Your task to perform on an android device: Open battery settings Image 0: 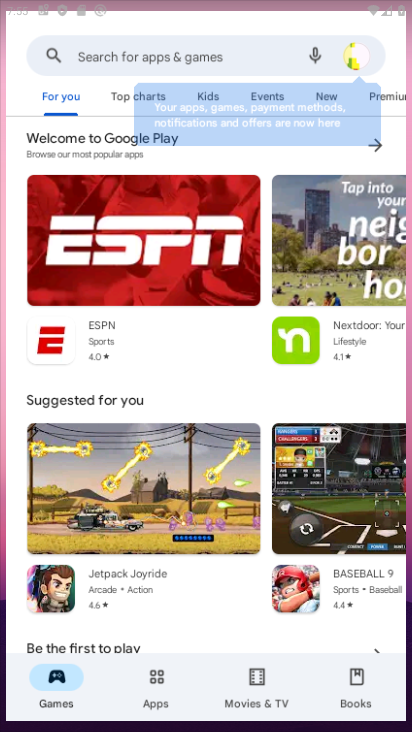
Step 0: click (135, 624)
Your task to perform on an android device: Open battery settings Image 1: 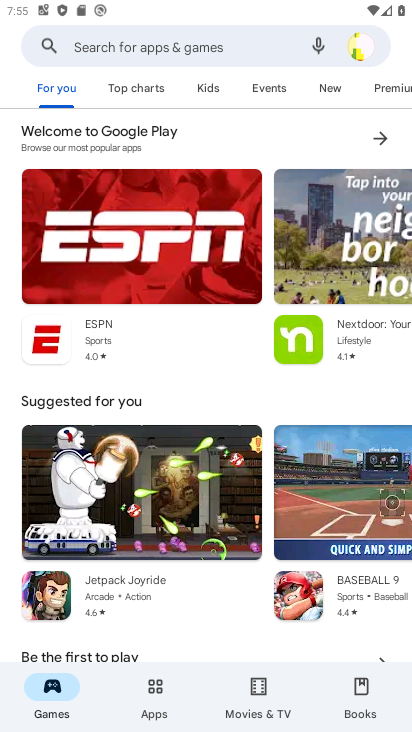
Step 1: press home button
Your task to perform on an android device: Open battery settings Image 2: 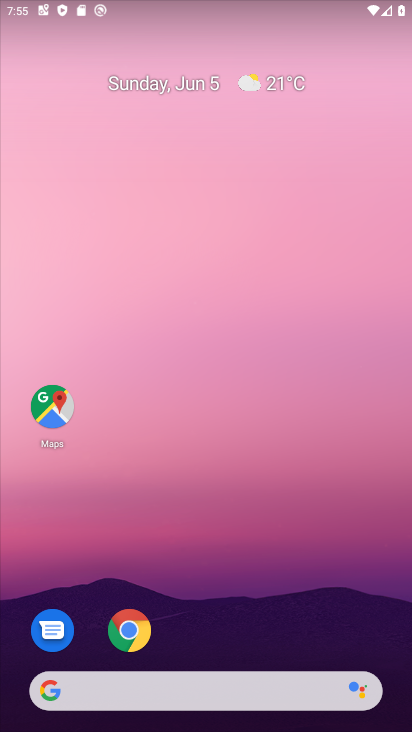
Step 2: drag from (346, 680) to (209, 111)
Your task to perform on an android device: Open battery settings Image 3: 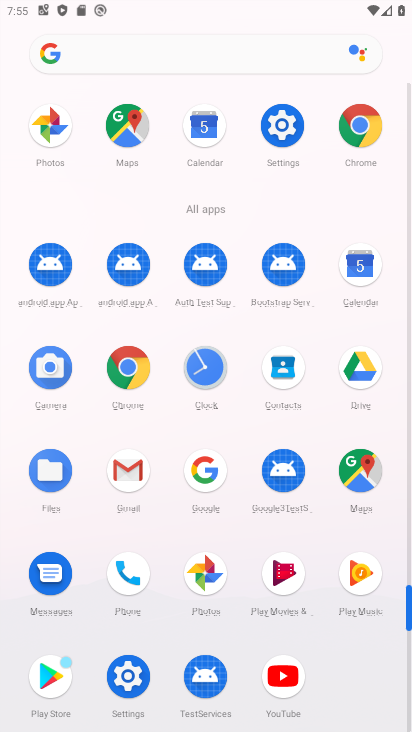
Step 3: click (270, 129)
Your task to perform on an android device: Open battery settings Image 4: 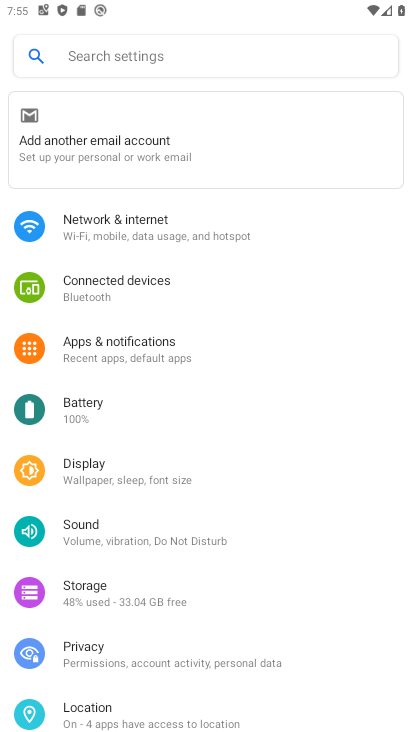
Step 4: click (233, 423)
Your task to perform on an android device: Open battery settings Image 5: 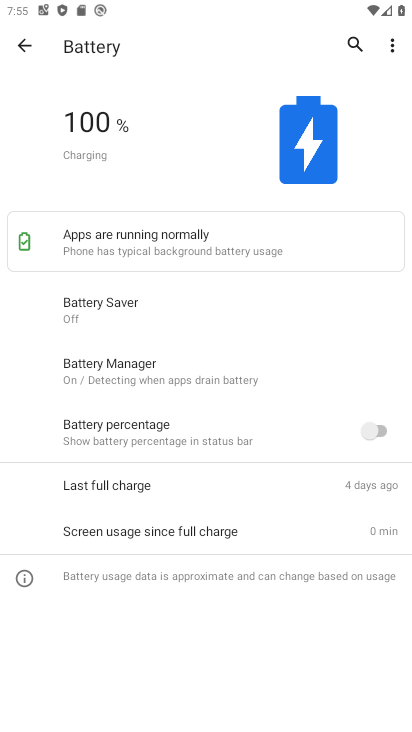
Step 5: task complete